Your task to perform on an android device: What's the weather going to be tomorrow? Image 0: 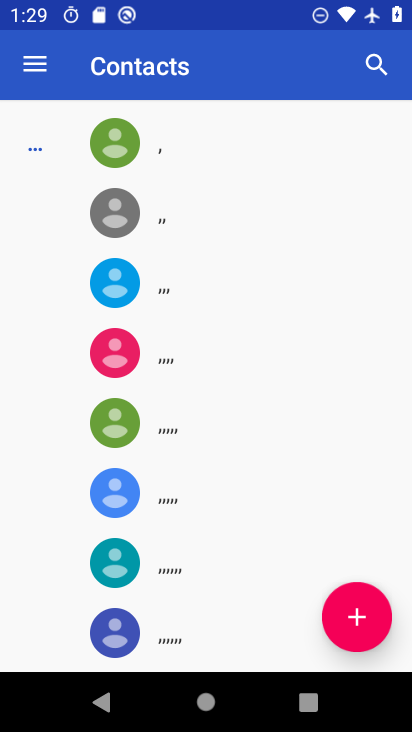
Step 0: press home button
Your task to perform on an android device: What's the weather going to be tomorrow? Image 1: 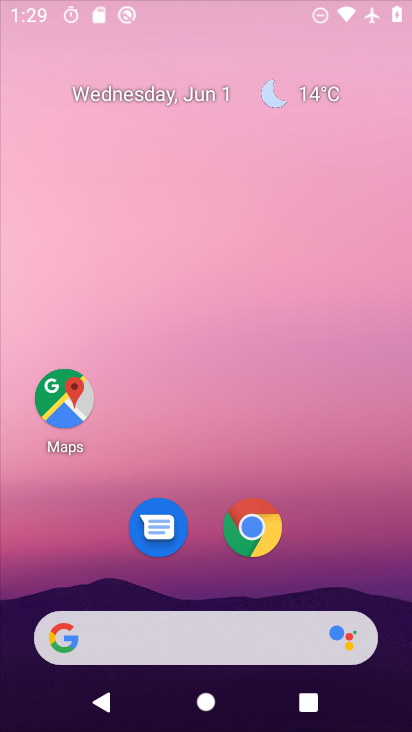
Step 1: drag from (211, 649) to (200, 124)
Your task to perform on an android device: What's the weather going to be tomorrow? Image 2: 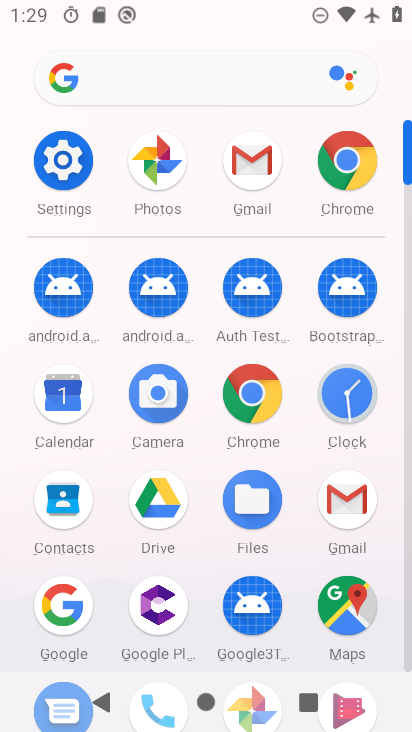
Step 2: click (62, 619)
Your task to perform on an android device: What's the weather going to be tomorrow? Image 3: 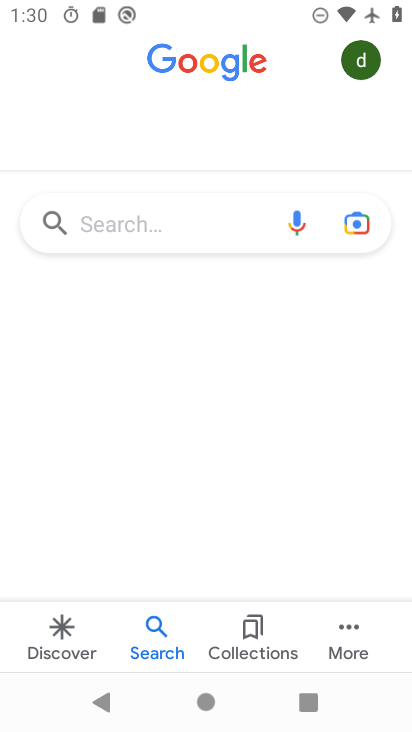
Step 3: click (174, 229)
Your task to perform on an android device: What's the weather going to be tomorrow? Image 4: 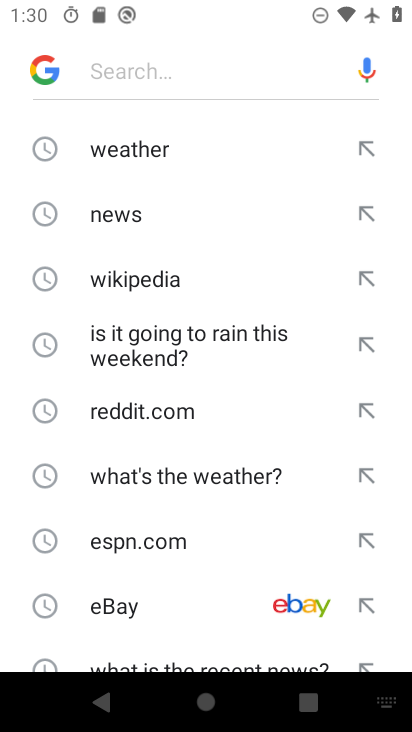
Step 4: click (236, 150)
Your task to perform on an android device: What's the weather going to be tomorrow? Image 5: 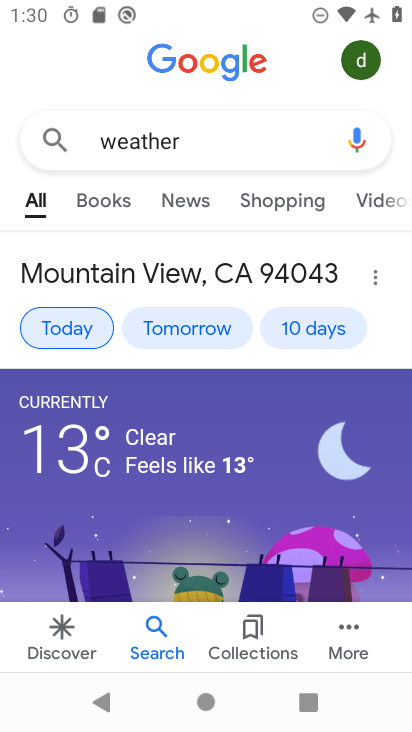
Step 5: click (200, 320)
Your task to perform on an android device: What's the weather going to be tomorrow? Image 6: 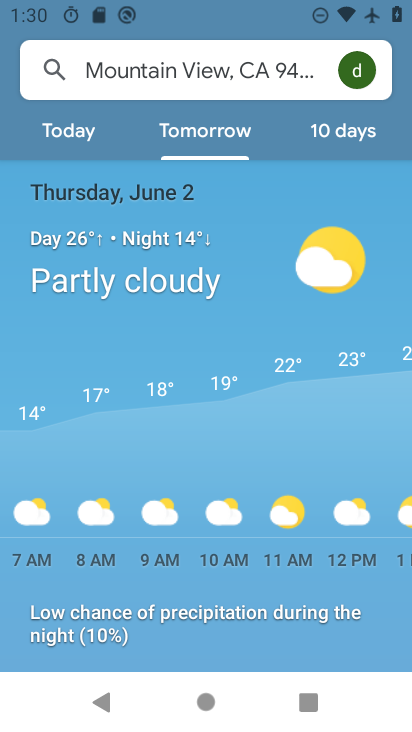
Step 6: task complete